Your task to perform on an android device: Go to network settings Image 0: 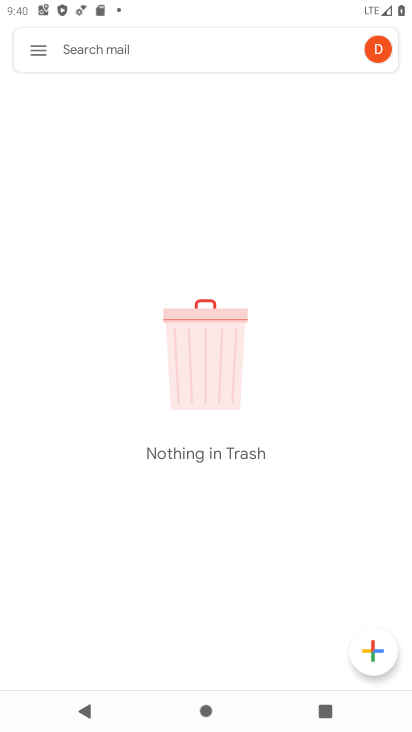
Step 0: press back button
Your task to perform on an android device: Go to network settings Image 1: 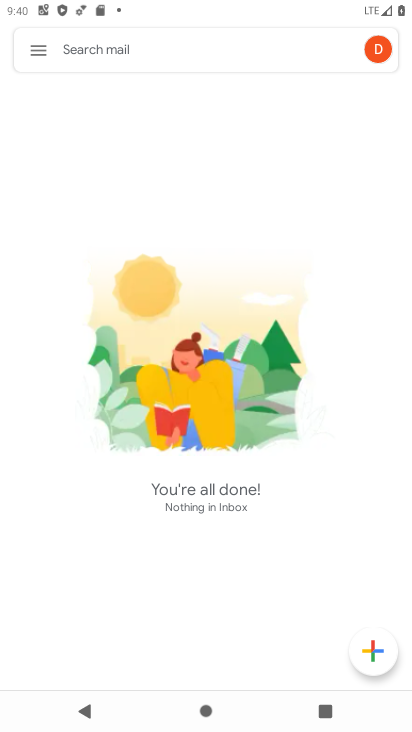
Step 1: press back button
Your task to perform on an android device: Go to network settings Image 2: 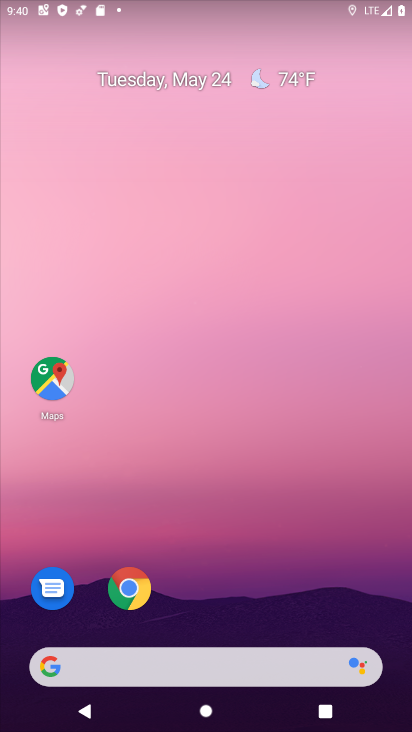
Step 2: drag from (296, 569) to (238, 32)
Your task to perform on an android device: Go to network settings Image 3: 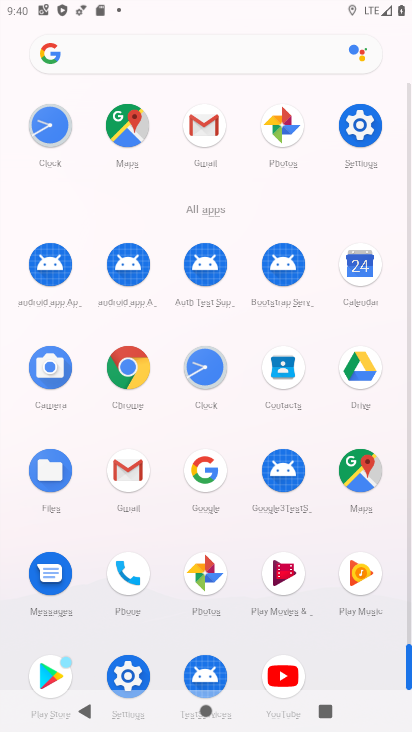
Step 3: drag from (14, 611) to (0, 291)
Your task to perform on an android device: Go to network settings Image 4: 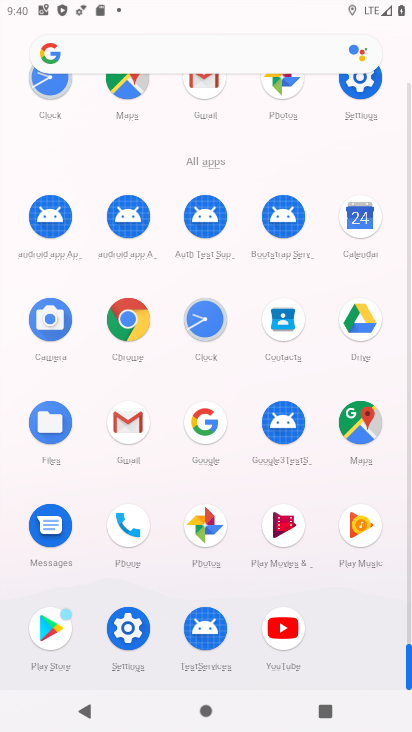
Step 4: click (126, 621)
Your task to perform on an android device: Go to network settings Image 5: 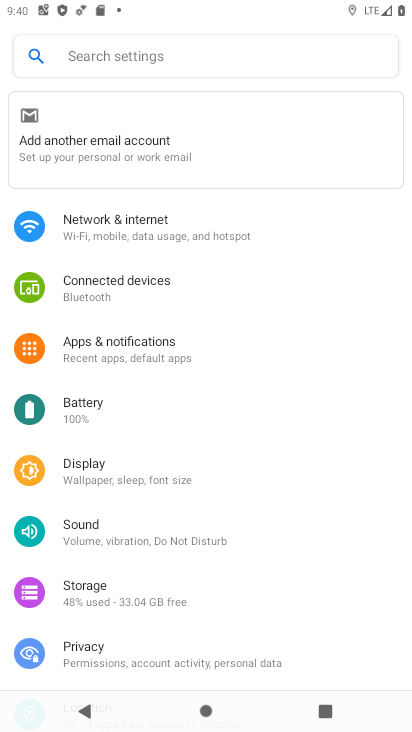
Step 5: click (160, 211)
Your task to perform on an android device: Go to network settings Image 6: 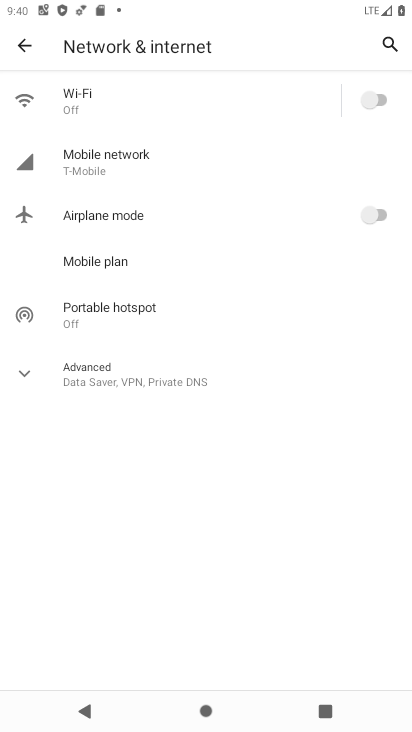
Step 6: click (23, 373)
Your task to perform on an android device: Go to network settings Image 7: 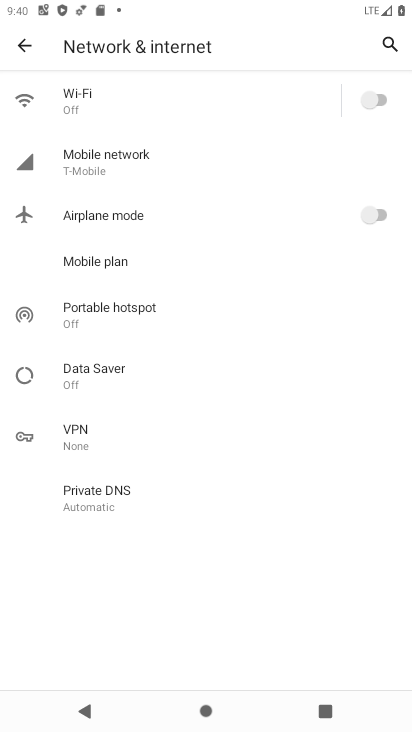
Step 7: task complete